Your task to perform on an android device: View the shopping cart on walmart. Search for logitech g933 on walmart, select the first entry, add it to the cart, then select checkout. Image 0: 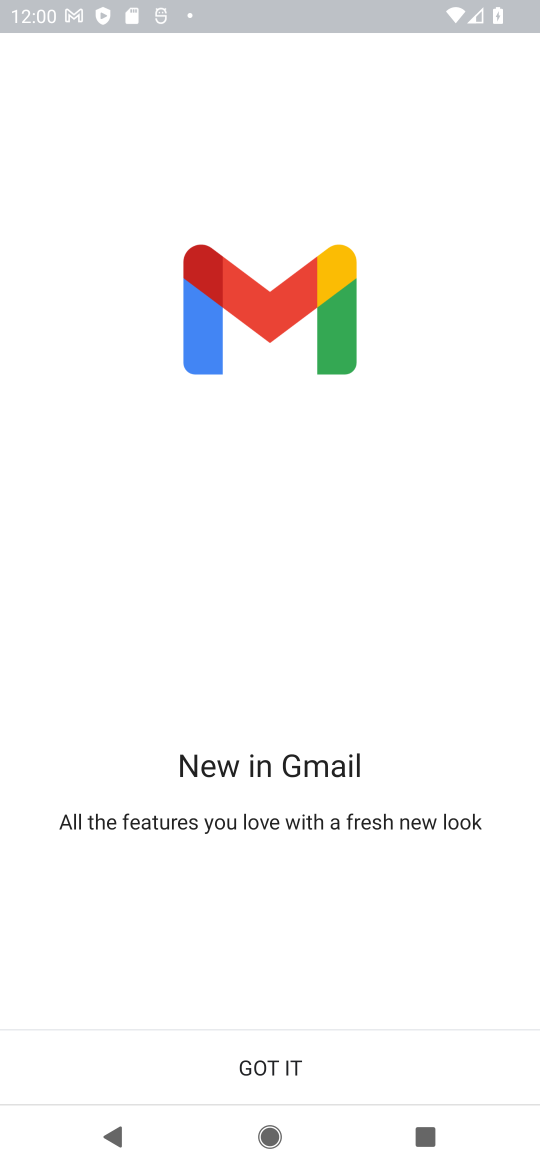
Step 0: press home button
Your task to perform on an android device: View the shopping cart on walmart. Search for logitech g933 on walmart, select the first entry, add it to the cart, then select checkout. Image 1: 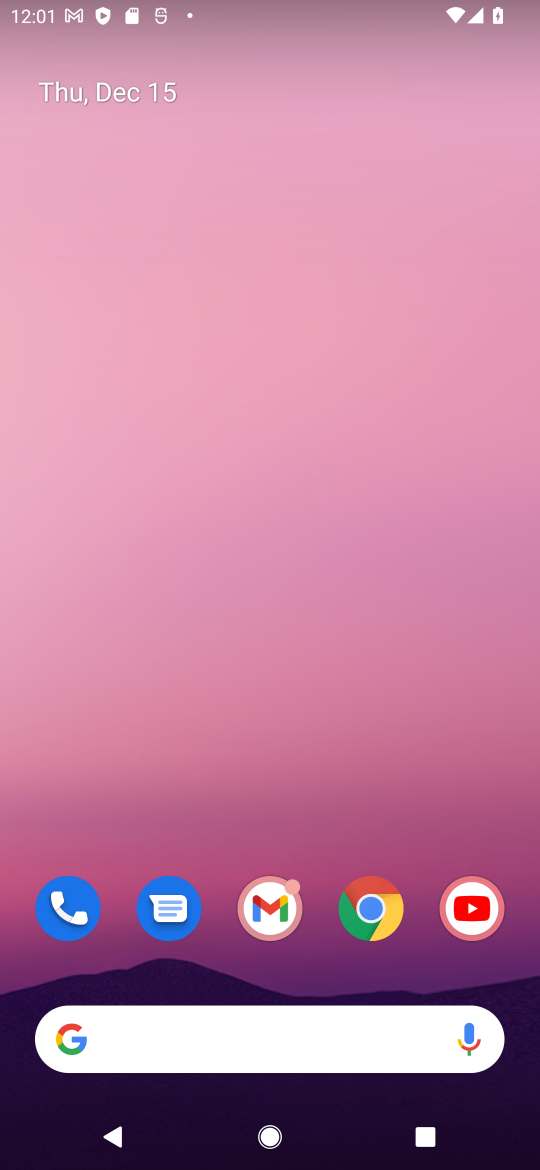
Step 1: click (380, 904)
Your task to perform on an android device: View the shopping cart on walmart. Search for logitech g933 on walmart, select the first entry, add it to the cart, then select checkout. Image 2: 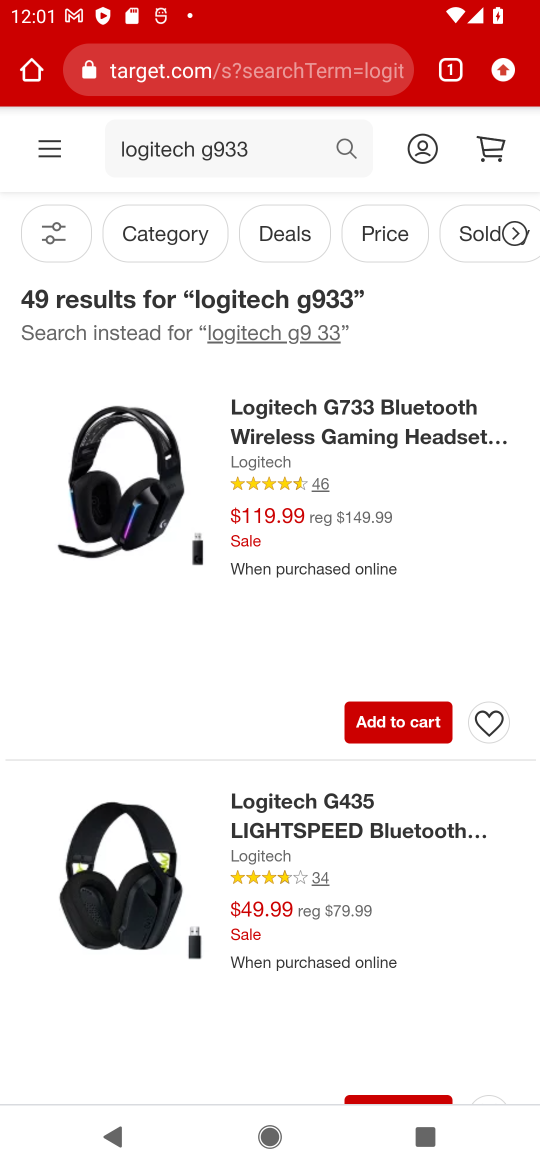
Step 2: click (243, 65)
Your task to perform on an android device: View the shopping cart on walmart. Search for logitech g933 on walmart, select the first entry, add it to the cart, then select checkout. Image 3: 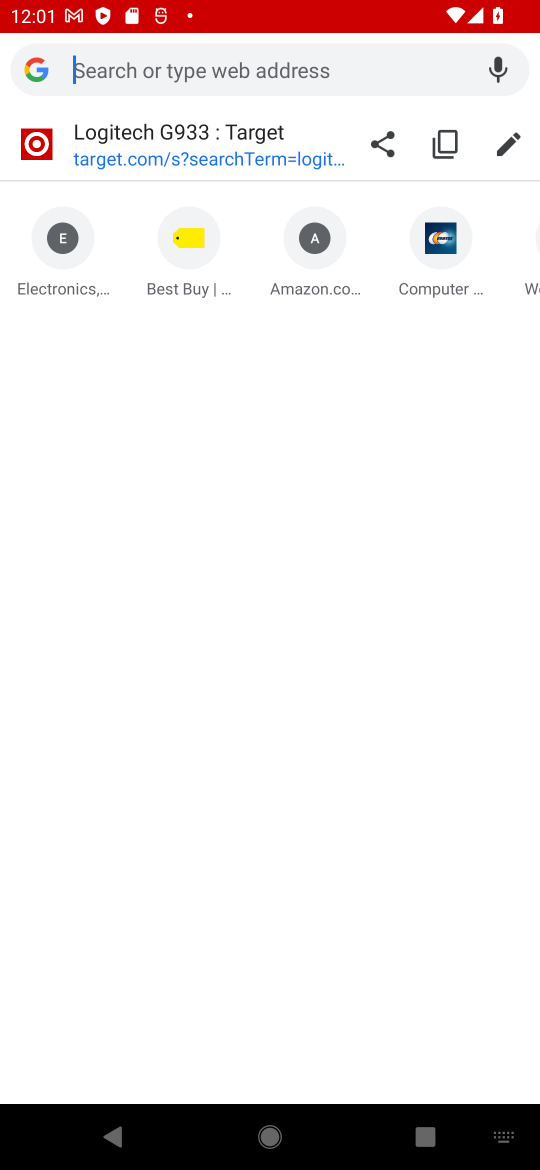
Step 3: type "walmart.com"
Your task to perform on an android device: View the shopping cart on walmart. Search for logitech g933 on walmart, select the first entry, add it to the cart, then select checkout. Image 4: 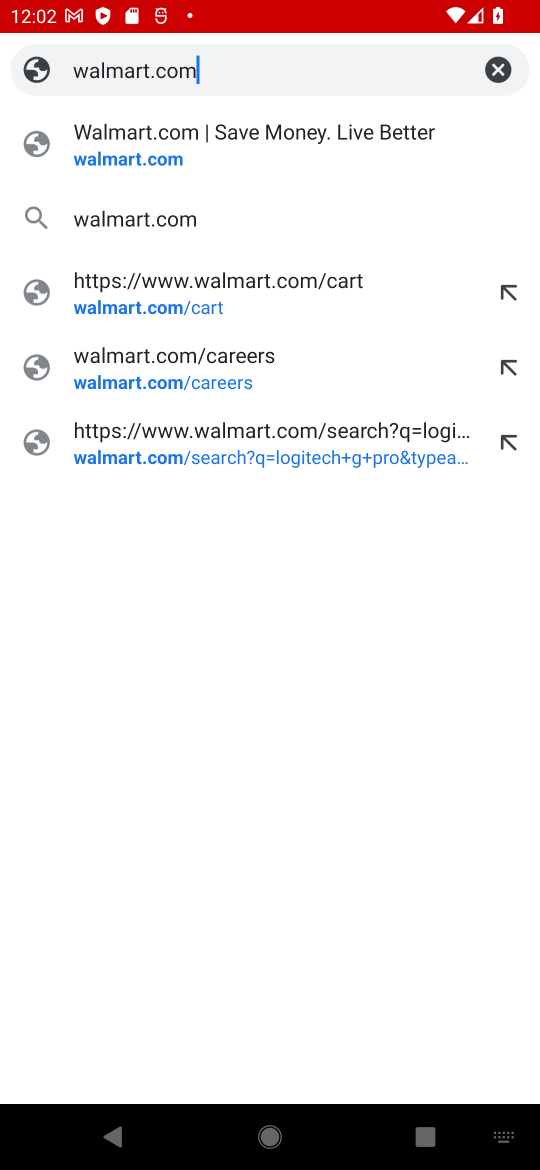
Step 4: click (85, 168)
Your task to perform on an android device: View the shopping cart on walmart. Search for logitech g933 on walmart, select the first entry, add it to the cart, then select checkout. Image 5: 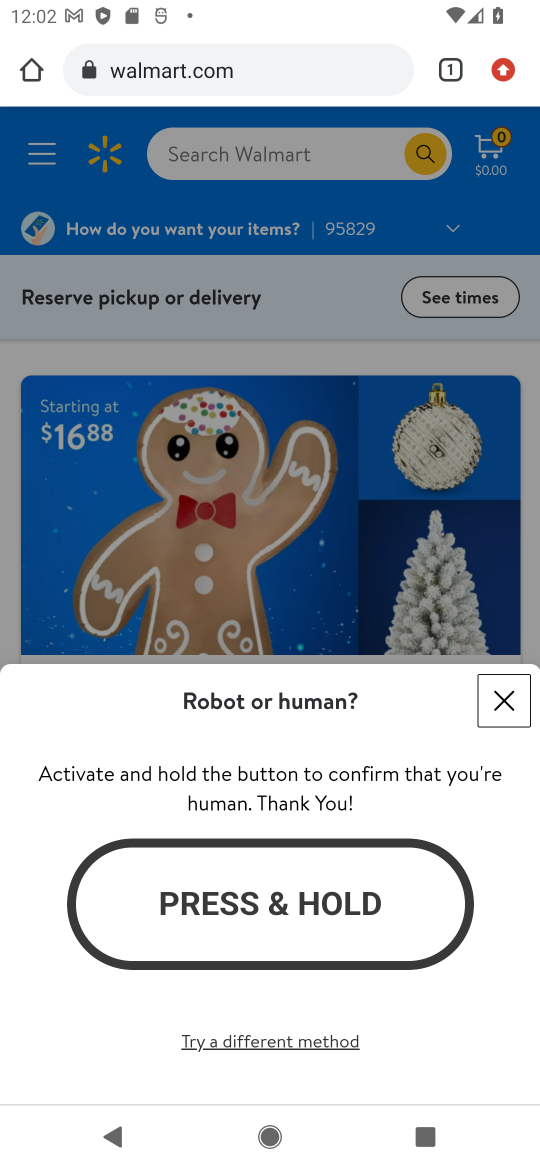
Step 5: click (253, 894)
Your task to perform on an android device: View the shopping cart on walmart. Search for logitech g933 on walmart, select the first entry, add it to the cart, then select checkout. Image 6: 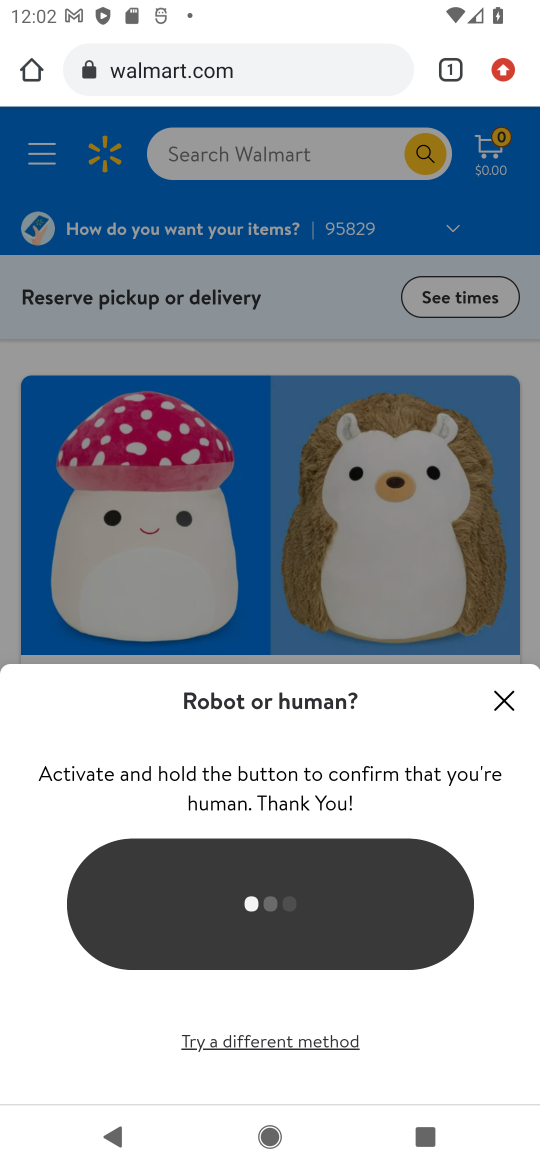
Step 6: click (492, 157)
Your task to perform on an android device: View the shopping cart on walmart. Search for logitech g933 on walmart, select the first entry, add it to the cart, then select checkout. Image 7: 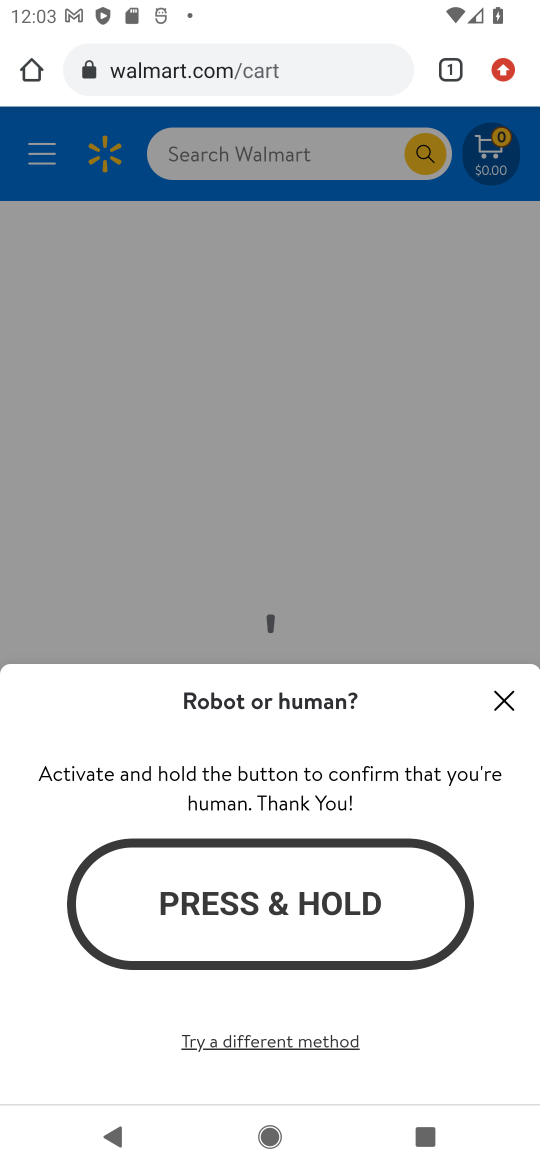
Step 7: click (501, 696)
Your task to perform on an android device: View the shopping cart on walmart. Search for logitech g933 on walmart, select the first entry, add it to the cart, then select checkout. Image 8: 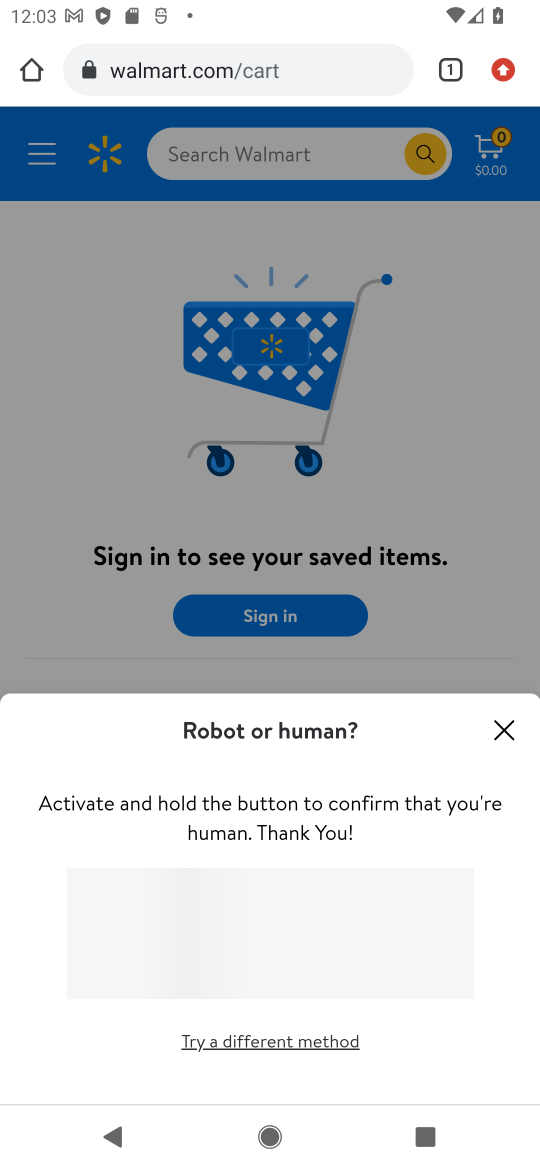
Step 8: click (489, 152)
Your task to perform on an android device: View the shopping cart on walmart. Search for logitech g933 on walmart, select the first entry, add it to the cart, then select checkout. Image 9: 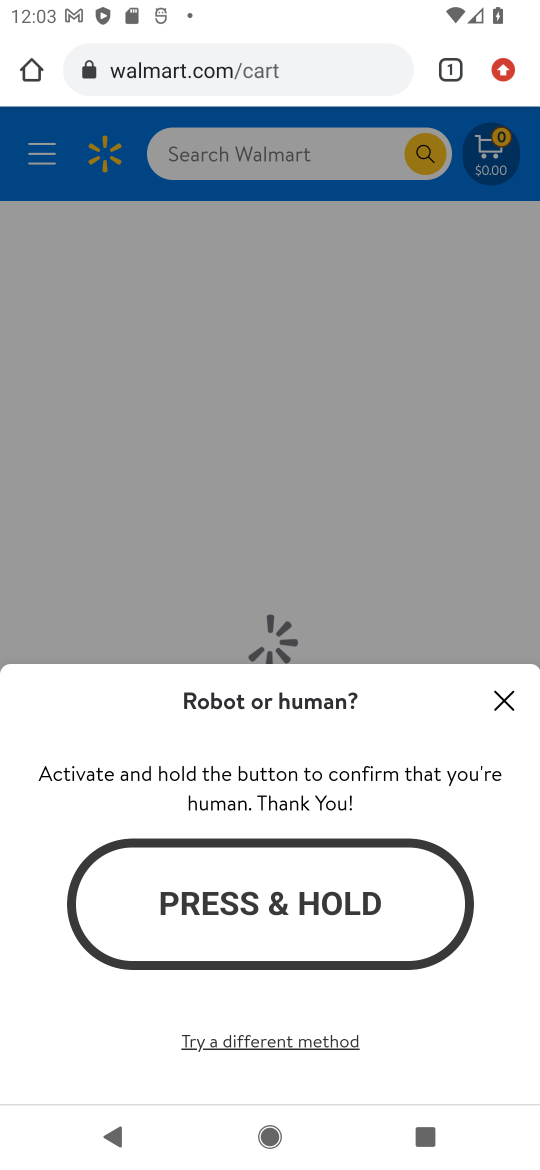
Step 9: click (505, 706)
Your task to perform on an android device: View the shopping cart on walmart. Search for logitech g933 on walmart, select the first entry, add it to the cart, then select checkout. Image 10: 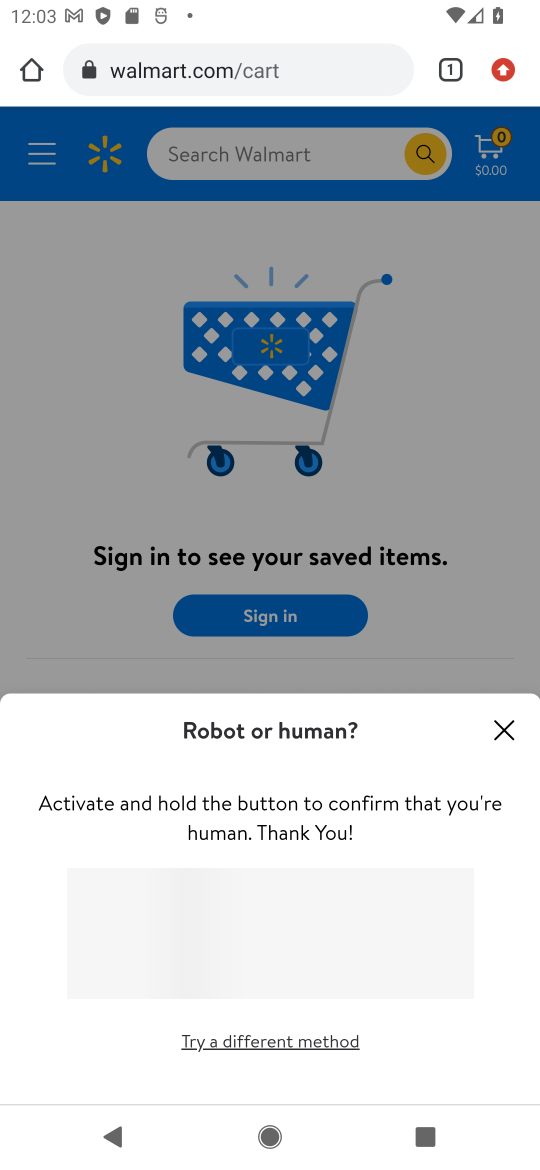
Step 10: click (209, 168)
Your task to perform on an android device: View the shopping cart on walmart. Search for logitech g933 on walmart, select the first entry, add it to the cart, then select checkout. Image 11: 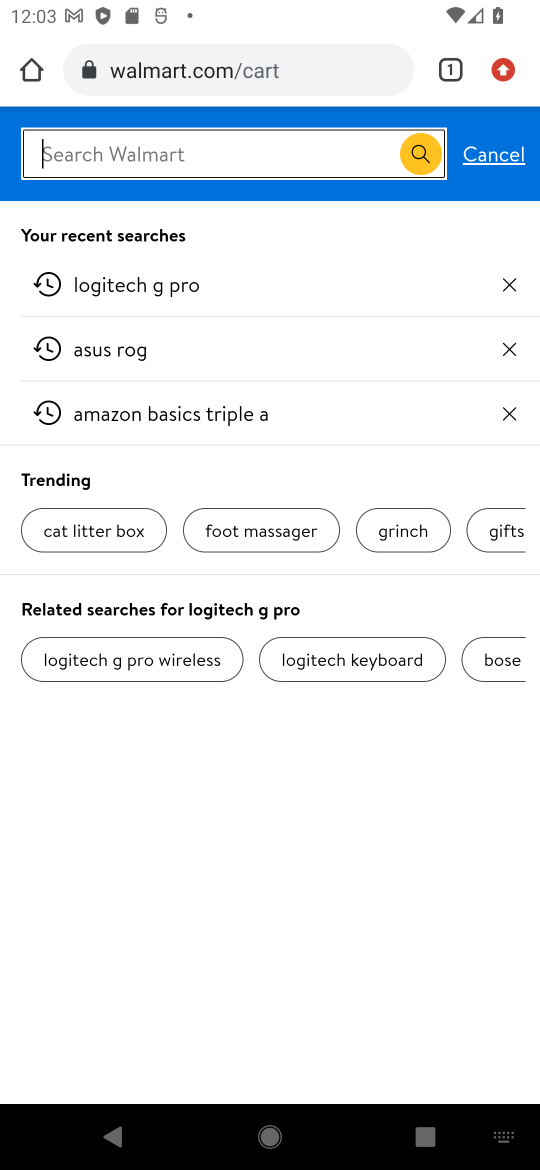
Step 11: type " logitech g933"
Your task to perform on an android device: View the shopping cart on walmart. Search for logitech g933 on walmart, select the first entry, add it to the cart, then select checkout. Image 12: 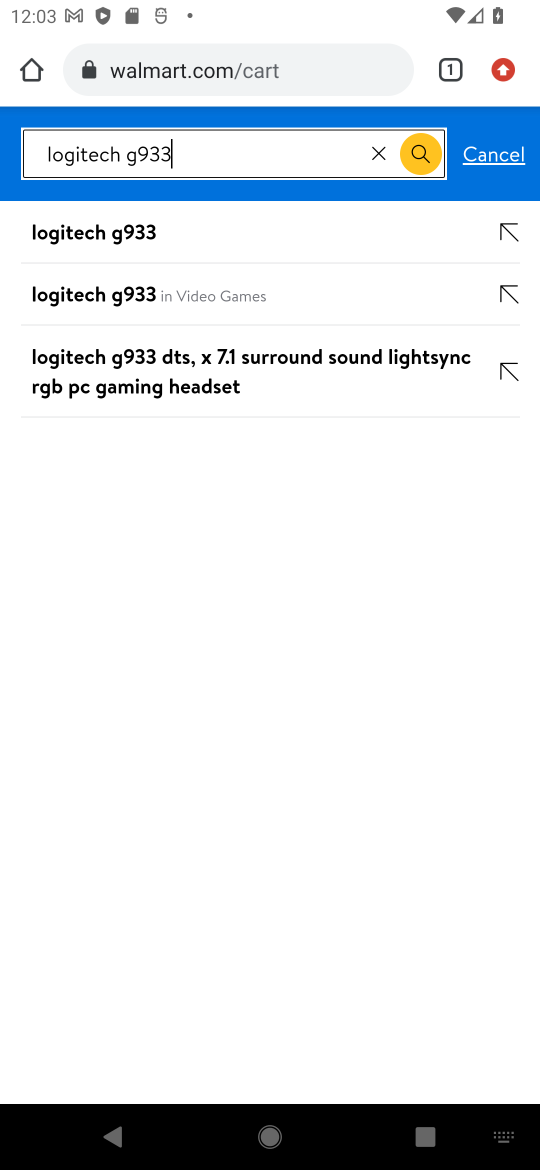
Step 12: click (109, 238)
Your task to perform on an android device: View the shopping cart on walmart. Search for logitech g933 on walmart, select the first entry, add it to the cart, then select checkout. Image 13: 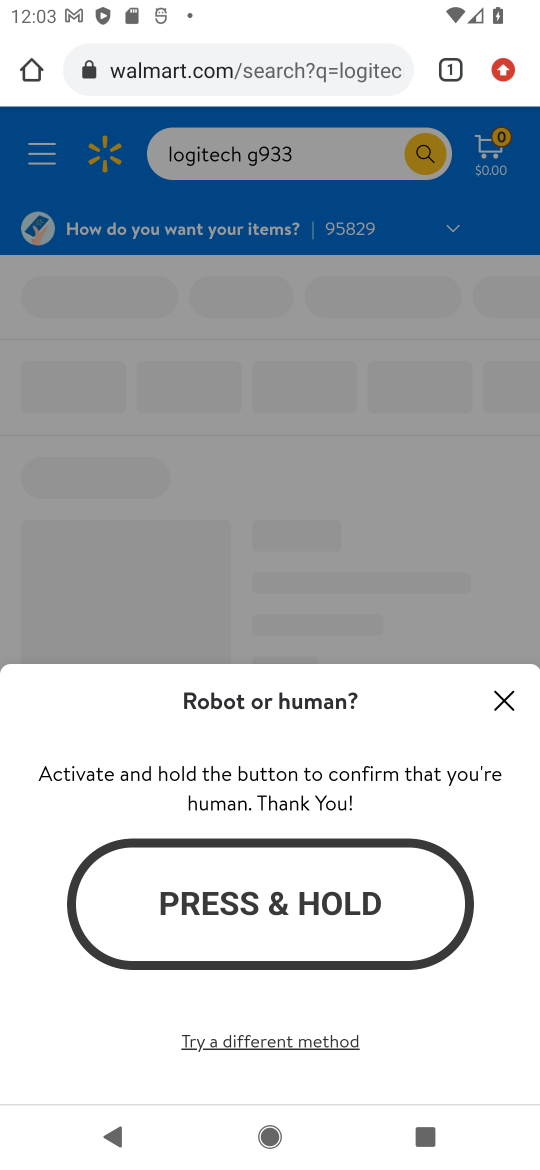
Step 13: click (505, 713)
Your task to perform on an android device: View the shopping cart on walmart. Search for logitech g933 on walmart, select the first entry, add it to the cart, then select checkout. Image 14: 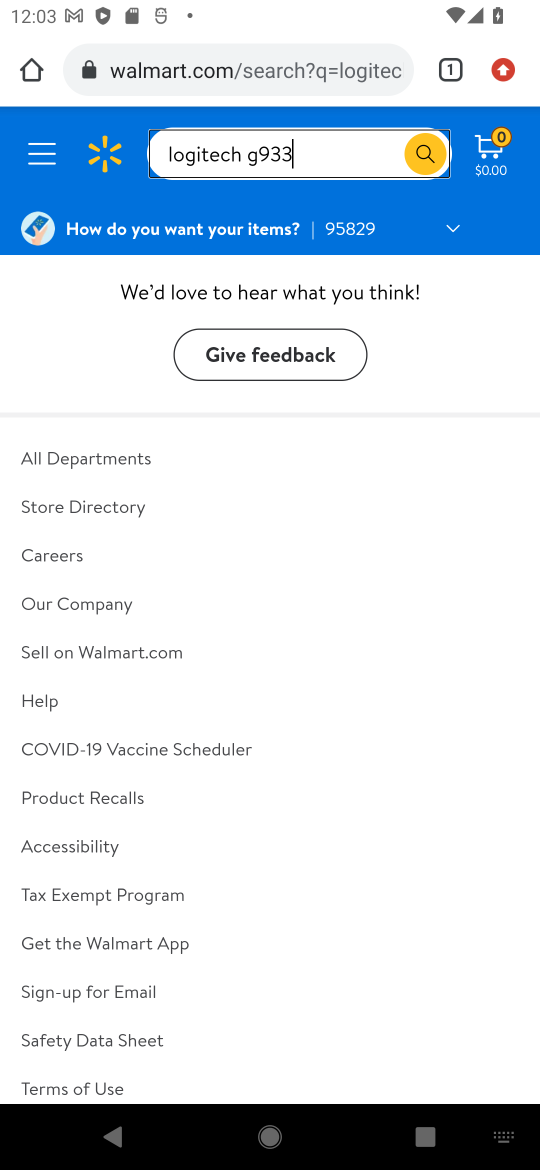
Step 14: click (429, 157)
Your task to perform on an android device: View the shopping cart on walmart. Search for logitech g933 on walmart, select the first entry, add it to the cart, then select checkout. Image 15: 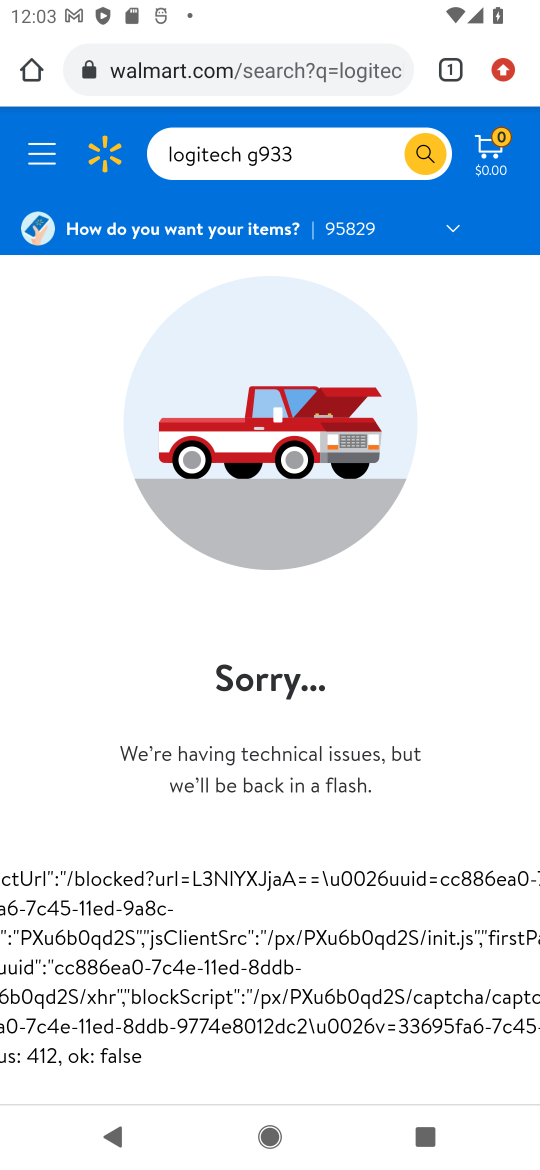
Step 15: task complete